Your task to perform on an android device: turn off notifications in google photos Image 0: 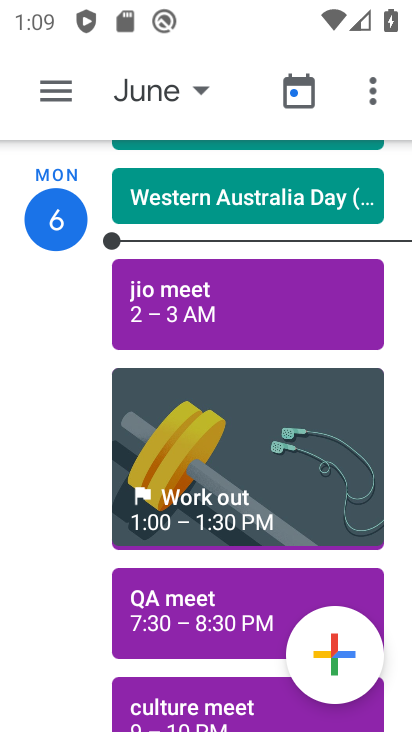
Step 0: press home button
Your task to perform on an android device: turn off notifications in google photos Image 1: 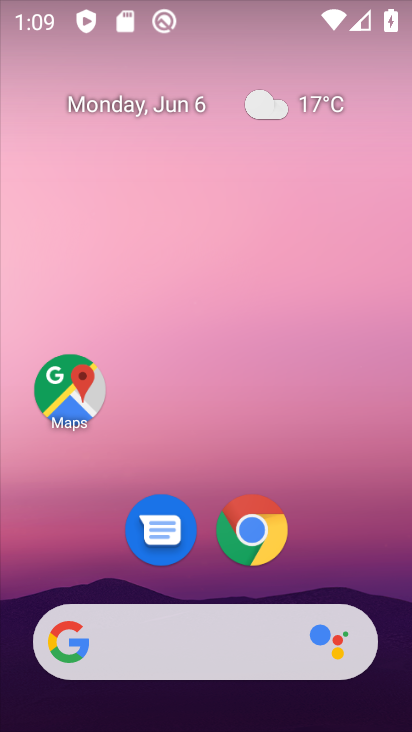
Step 1: drag from (199, 551) to (181, 228)
Your task to perform on an android device: turn off notifications in google photos Image 2: 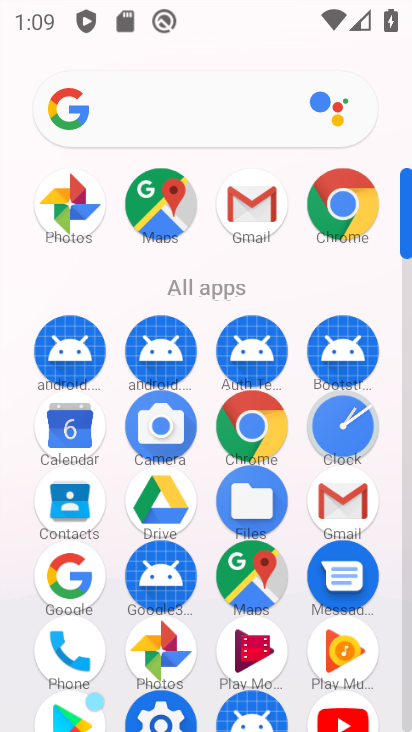
Step 2: click (179, 645)
Your task to perform on an android device: turn off notifications in google photos Image 3: 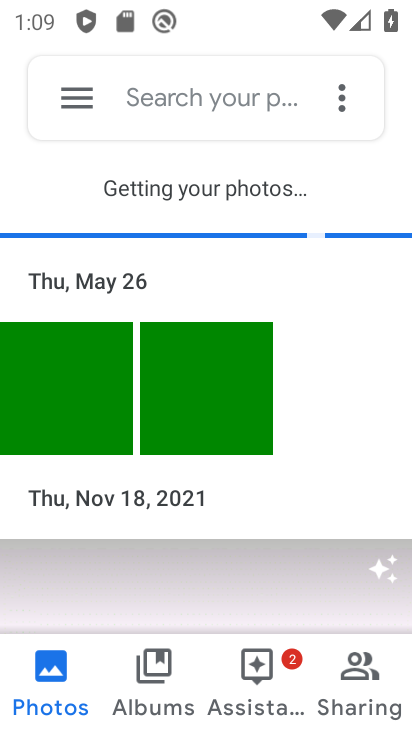
Step 3: click (58, 85)
Your task to perform on an android device: turn off notifications in google photos Image 4: 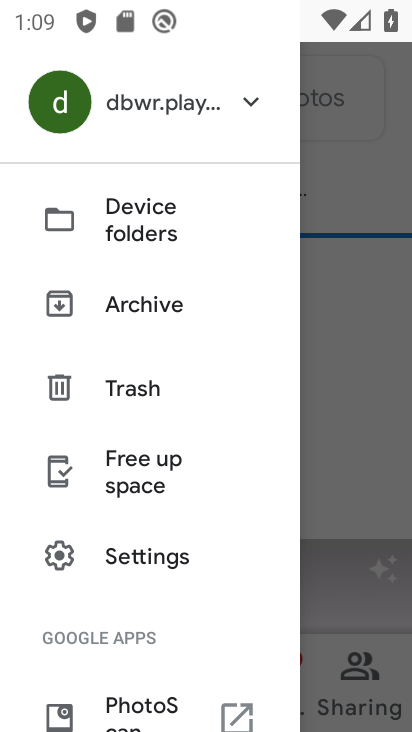
Step 4: click (138, 559)
Your task to perform on an android device: turn off notifications in google photos Image 5: 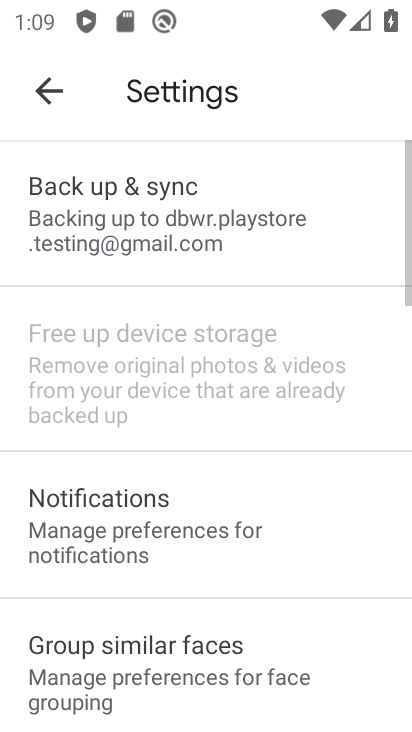
Step 5: click (170, 518)
Your task to perform on an android device: turn off notifications in google photos Image 6: 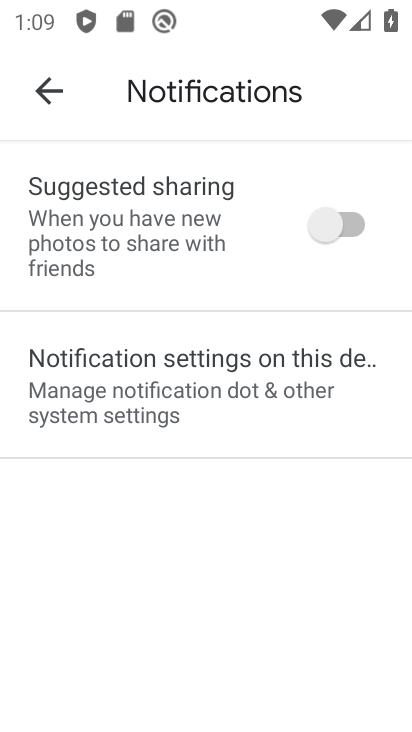
Step 6: click (292, 345)
Your task to perform on an android device: turn off notifications in google photos Image 7: 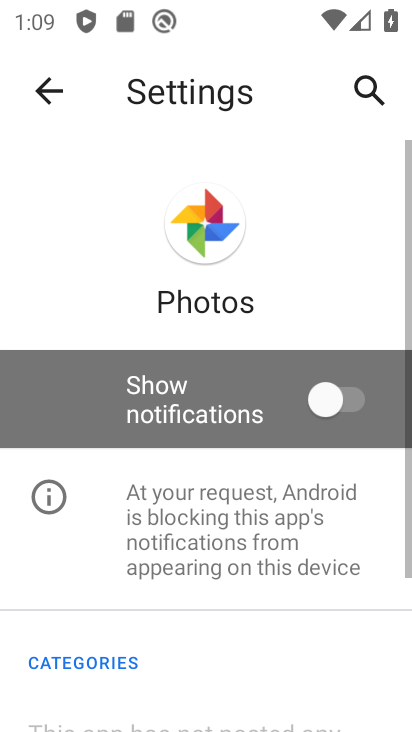
Step 7: task complete